Your task to perform on an android device: manage bookmarks in the chrome app Image 0: 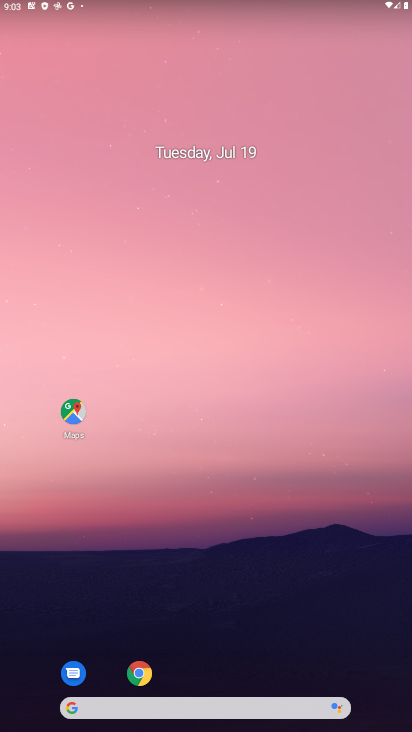
Step 0: click (150, 687)
Your task to perform on an android device: manage bookmarks in the chrome app Image 1: 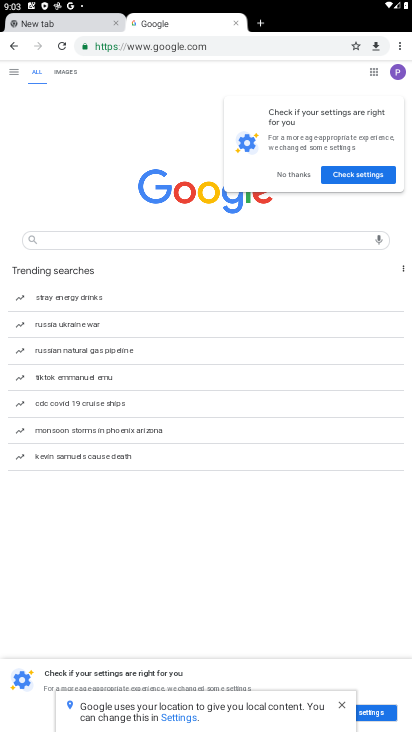
Step 1: click (396, 52)
Your task to perform on an android device: manage bookmarks in the chrome app Image 2: 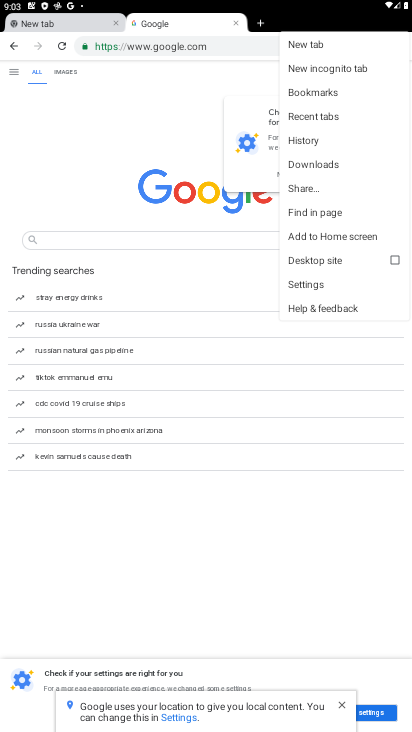
Step 2: click (308, 284)
Your task to perform on an android device: manage bookmarks in the chrome app Image 3: 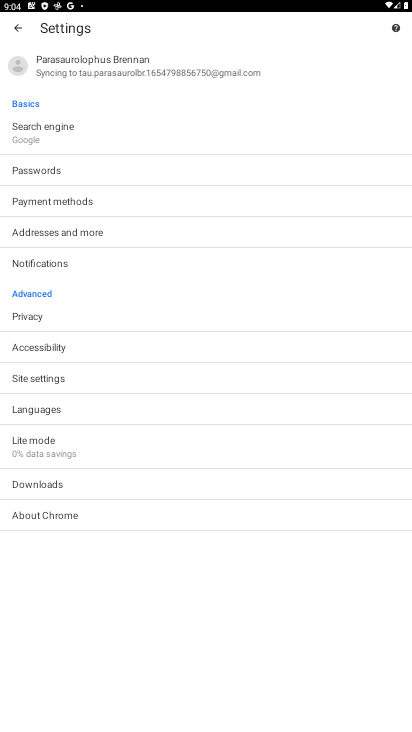
Step 3: task complete